Your task to perform on an android device: Set the phone to "Do not disturb". Image 0: 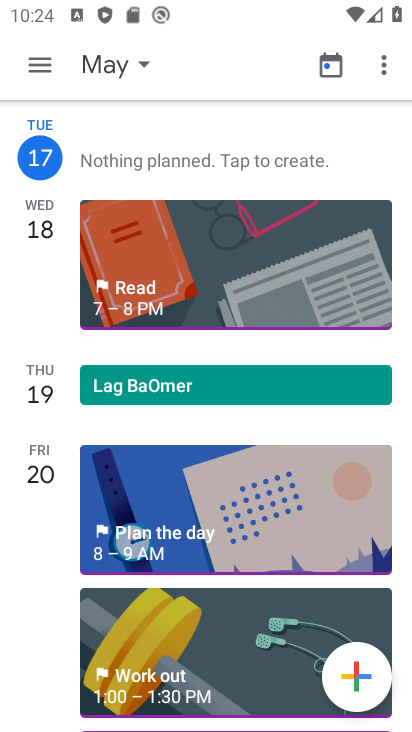
Step 0: press home button
Your task to perform on an android device: Set the phone to "Do not disturb". Image 1: 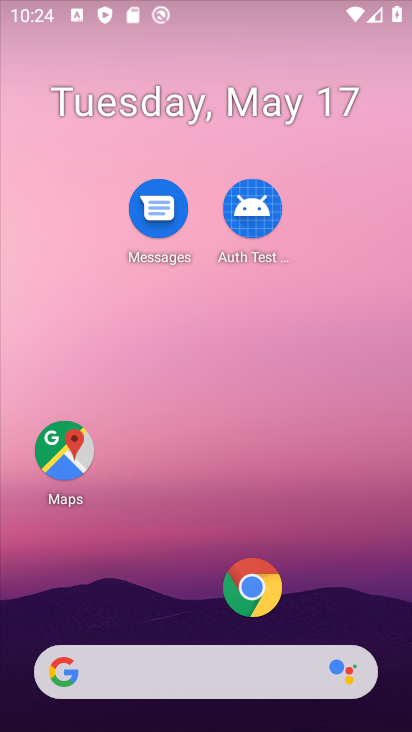
Step 1: drag from (162, 482) to (92, 129)
Your task to perform on an android device: Set the phone to "Do not disturb". Image 2: 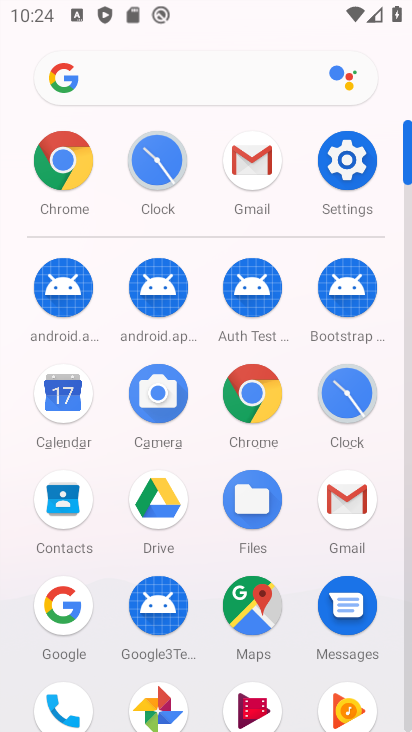
Step 2: click (319, 172)
Your task to perform on an android device: Set the phone to "Do not disturb". Image 3: 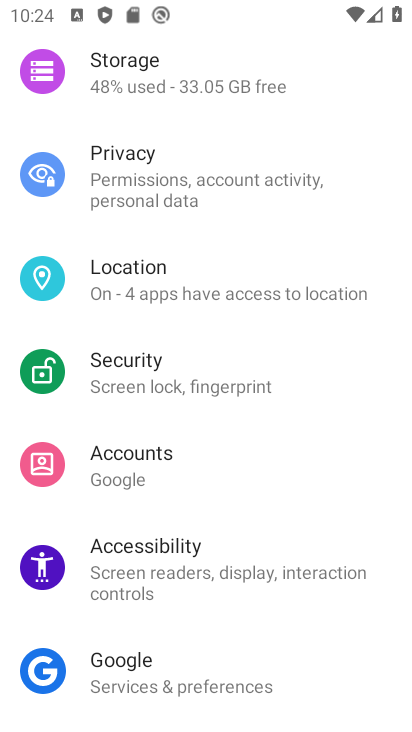
Step 3: drag from (196, 489) to (184, 306)
Your task to perform on an android device: Set the phone to "Do not disturb". Image 4: 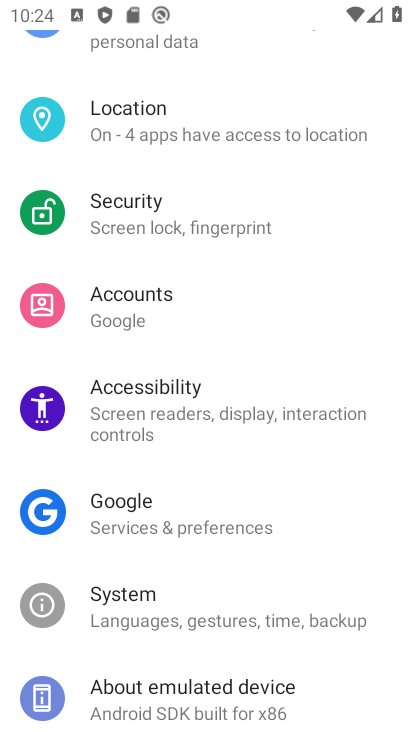
Step 4: drag from (182, 295) to (165, 206)
Your task to perform on an android device: Set the phone to "Do not disturb". Image 5: 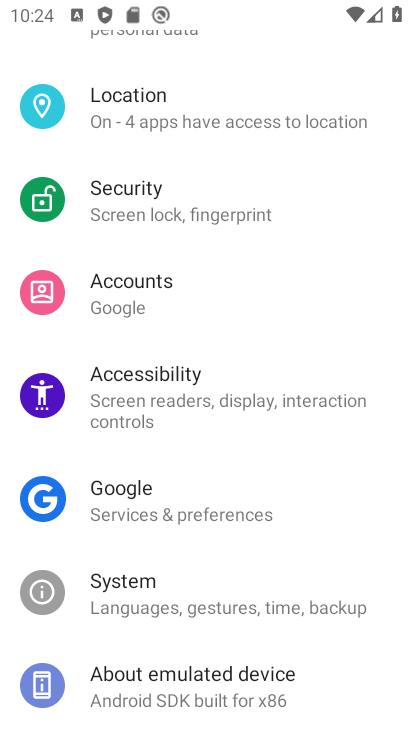
Step 5: drag from (157, 200) to (185, 449)
Your task to perform on an android device: Set the phone to "Do not disturb". Image 6: 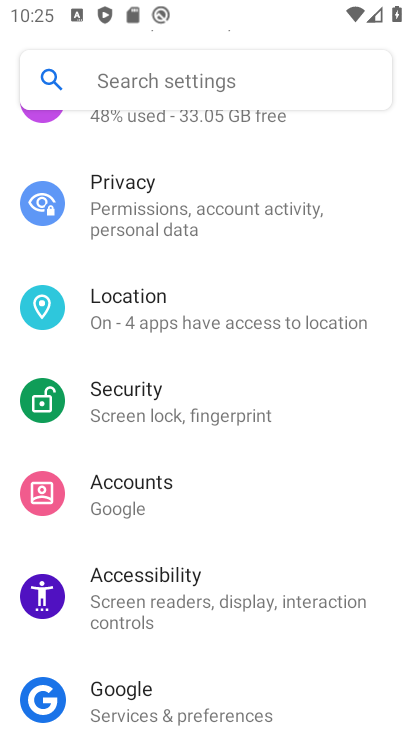
Step 6: drag from (143, 283) to (153, 502)
Your task to perform on an android device: Set the phone to "Do not disturb". Image 7: 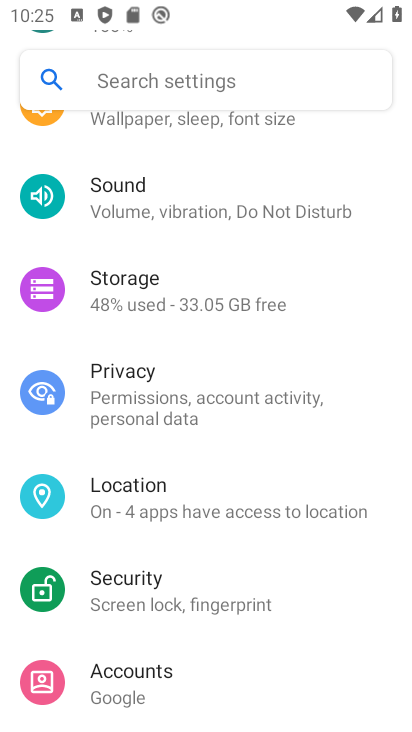
Step 7: click (155, 231)
Your task to perform on an android device: Set the phone to "Do not disturb". Image 8: 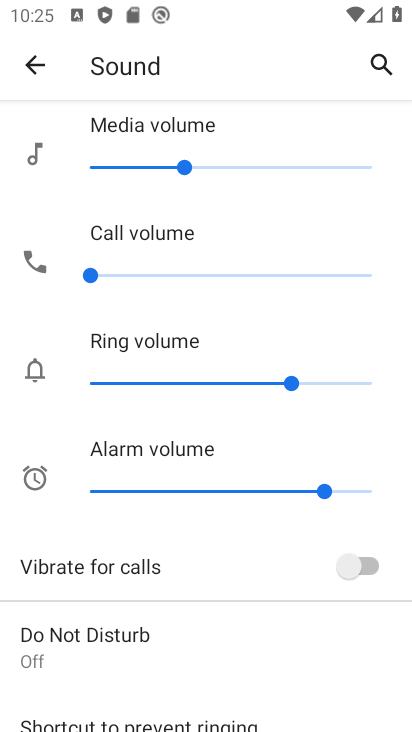
Step 8: drag from (231, 596) to (154, 231)
Your task to perform on an android device: Set the phone to "Do not disturb". Image 9: 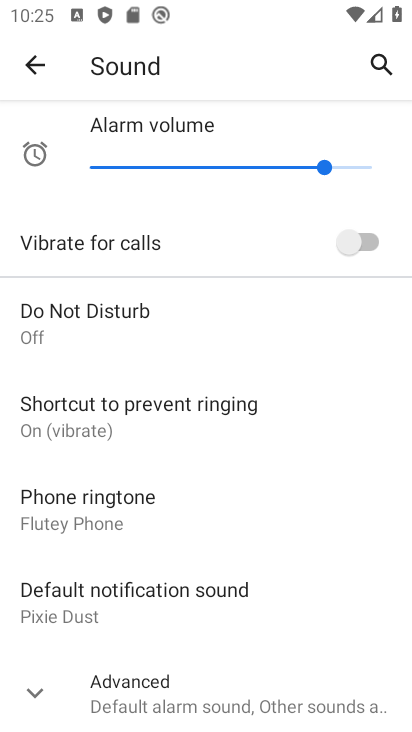
Step 9: click (132, 340)
Your task to perform on an android device: Set the phone to "Do not disturb". Image 10: 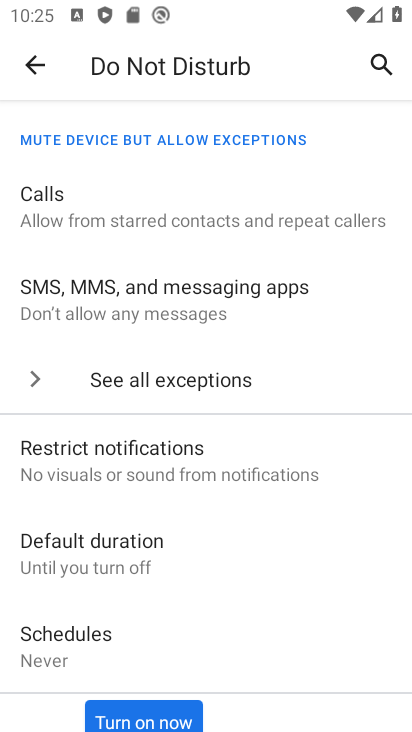
Step 10: click (144, 705)
Your task to perform on an android device: Set the phone to "Do not disturb". Image 11: 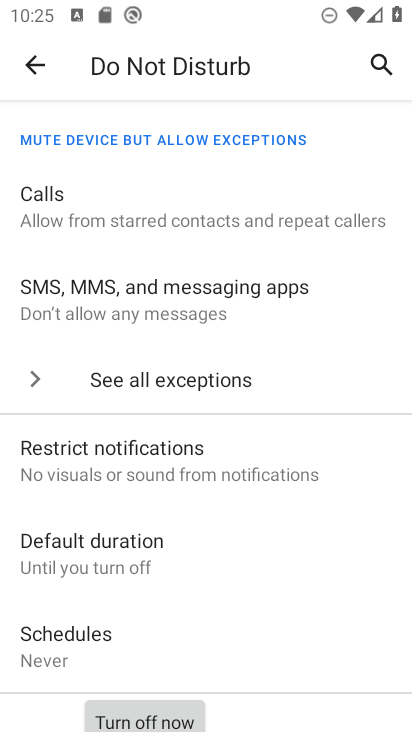
Step 11: task complete